Your task to perform on an android device: Play the last video I watched on Youtube Image 0: 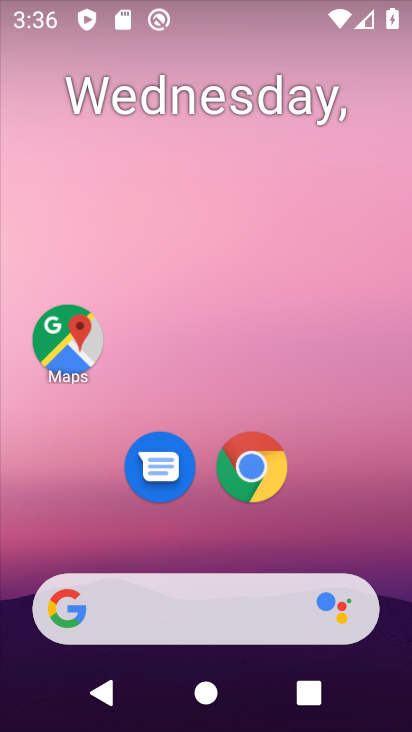
Step 0: drag from (316, 532) to (227, 12)
Your task to perform on an android device: Play the last video I watched on Youtube Image 1: 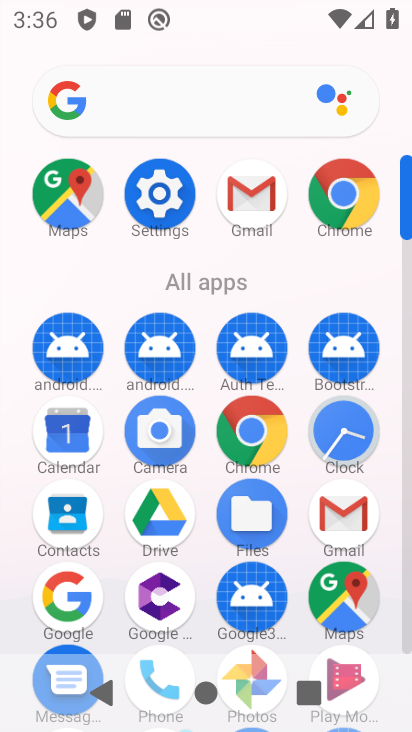
Step 1: drag from (299, 570) to (285, 181)
Your task to perform on an android device: Play the last video I watched on Youtube Image 2: 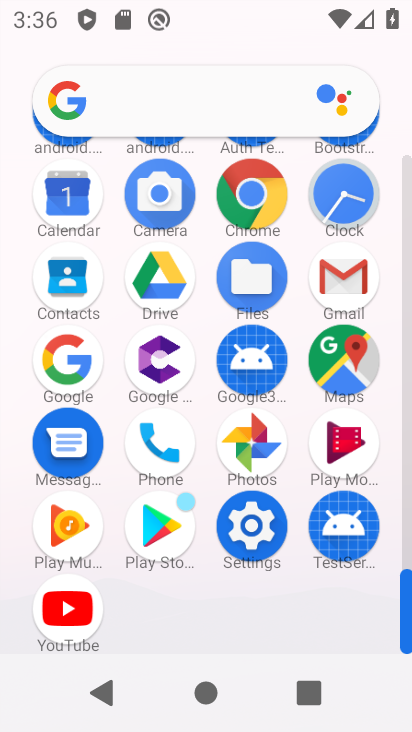
Step 2: click (72, 603)
Your task to perform on an android device: Play the last video I watched on Youtube Image 3: 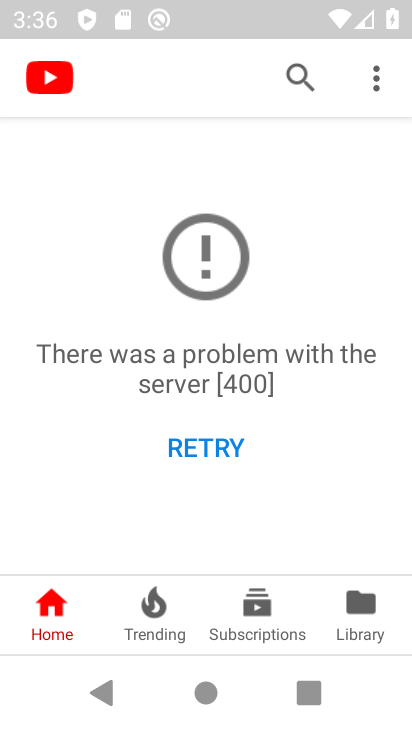
Step 3: click (368, 602)
Your task to perform on an android device: Play the last video I watched on Youtube Image 4: 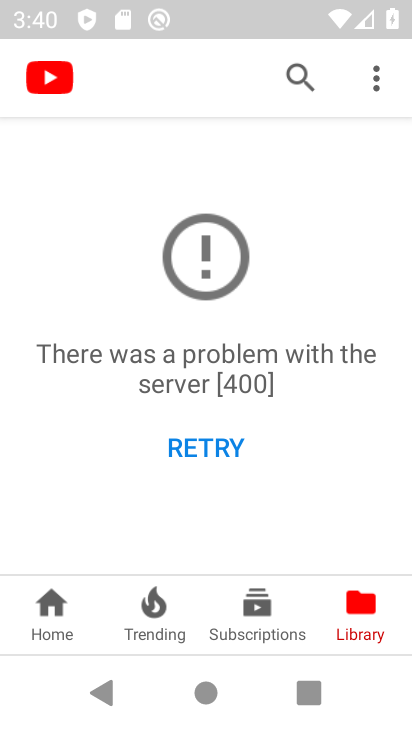
Step 4: task complete